Your task to perform on an android device: Go to Yahoo.com Image 0: 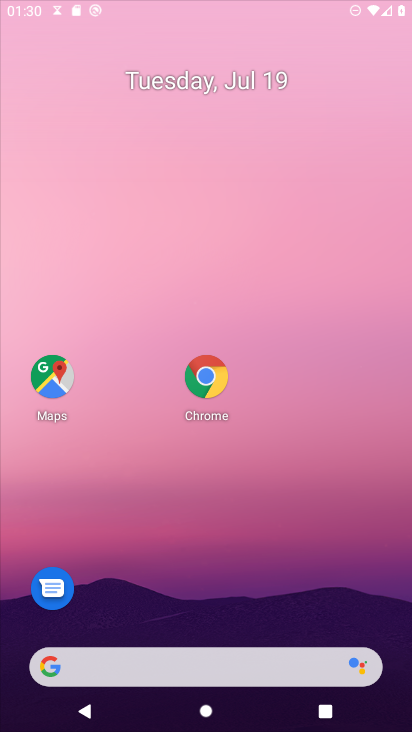
Step 0: press home button
Your task to perform on an android device: Go to Yahoo.com Image 1: 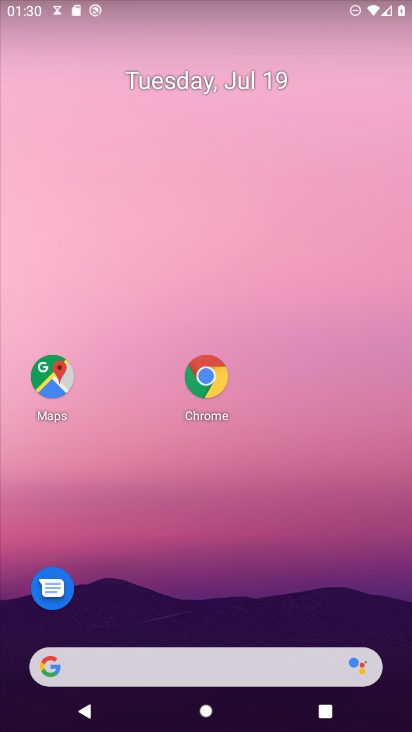
Step 1: click (52, 676)
Your task to perform on an android device: Go to Yahoo.com Image 2: 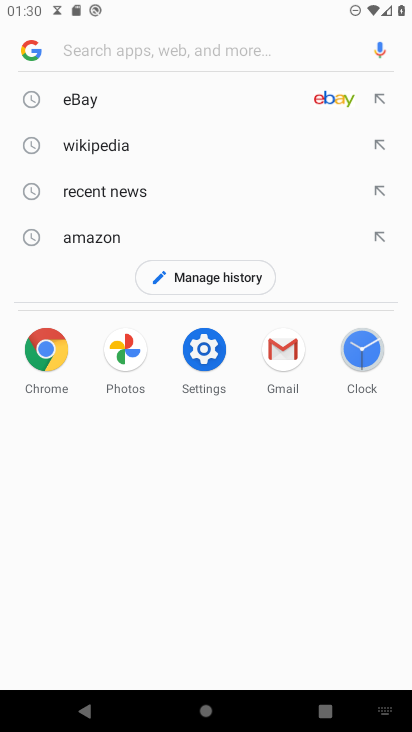
Step 2: type " Yahoo.com"
Your task to perform on an android device: Go to Yahoo.com Image 3: 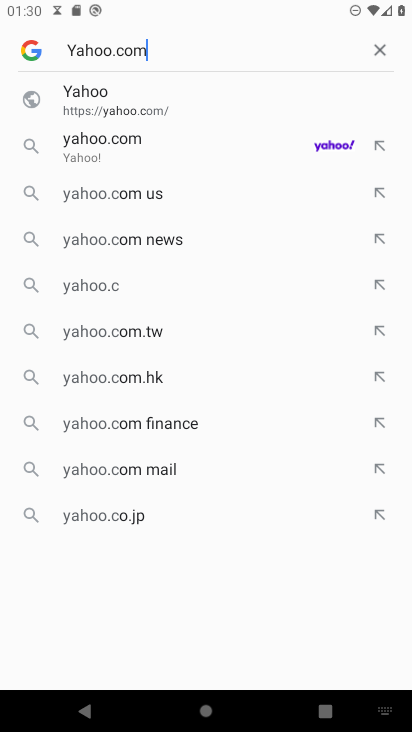
Step 3: press enter
Your task to perform on an android device: Go to Yahoo.com Image 4: 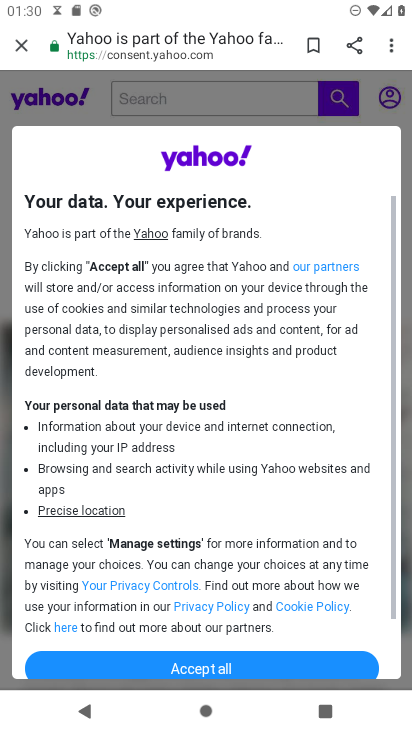
Step 4: click (241, 671)
Your task to perform on an android device: Go to Yahoo.com Image 5: 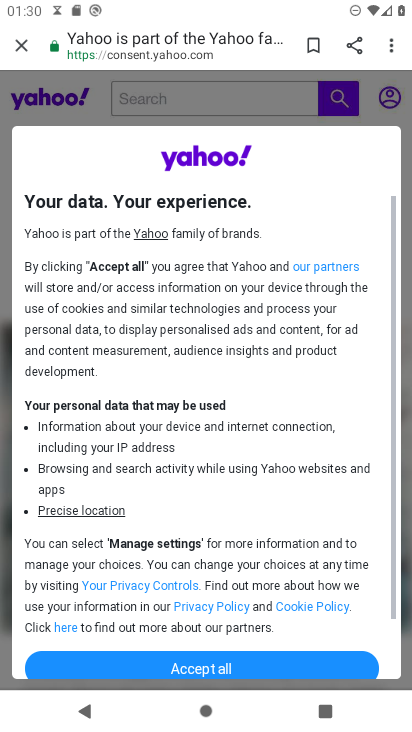
Step 5: click (253, 674)
Your task to perform on an android device: Go to Yahoo.com Image 6: 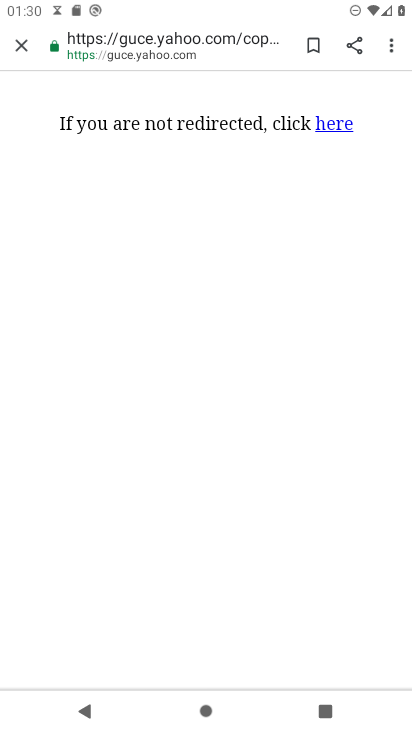
Step 6: task complete